Your task to perform on an android device: Open Yahoo.com Image 0: 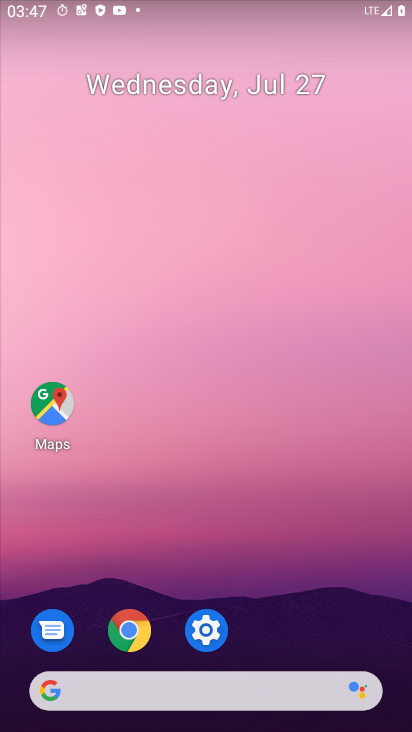
Step 0: drag from (270, 708) to (198, 222)
Your task to perform on an android device: Open Yahoo.com Image 1: 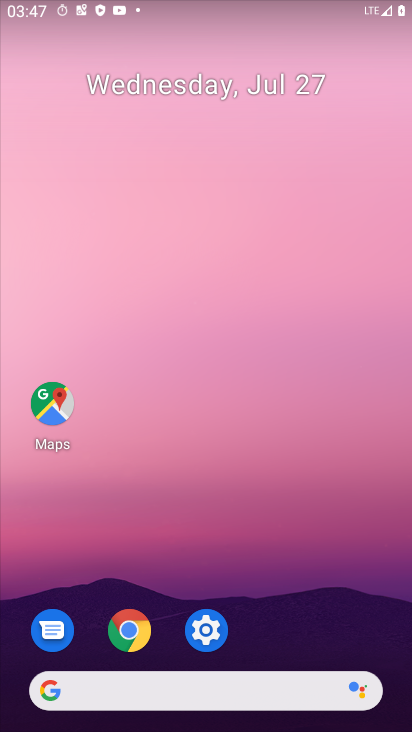
Step 1: drag from (226, 471) to (188, 282)
Your task to perform on an android device: Open Yahoo.com Image 2: 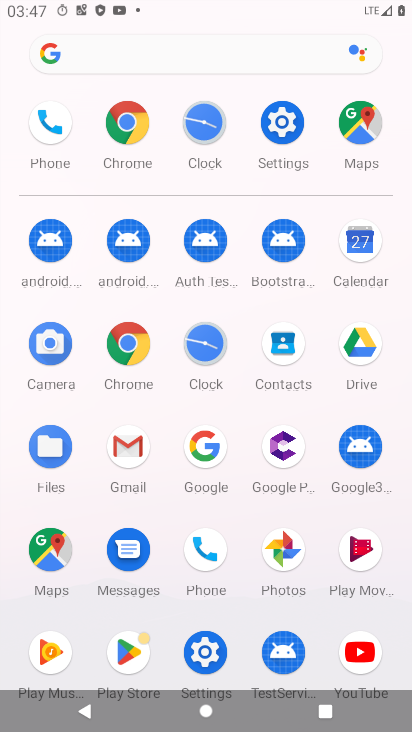
Step 2: drag from (266, 539) to (234, 165)
Your task to perform on an android device: Open Yahoo.com Image 3: 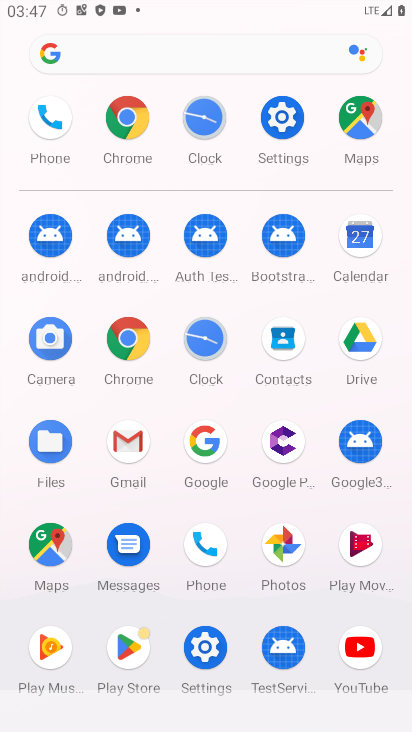
Step 3: drag from (289, 461) to (289, 319)
Your task to perform on an android device: Open Yahoo.com Image 4: 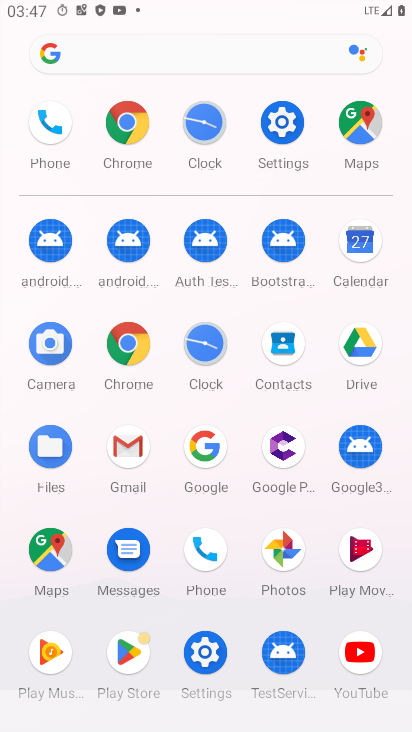
Step 4: click (131, 123)
Your task to perform on an android device: Open Yahoo.com Image 5: 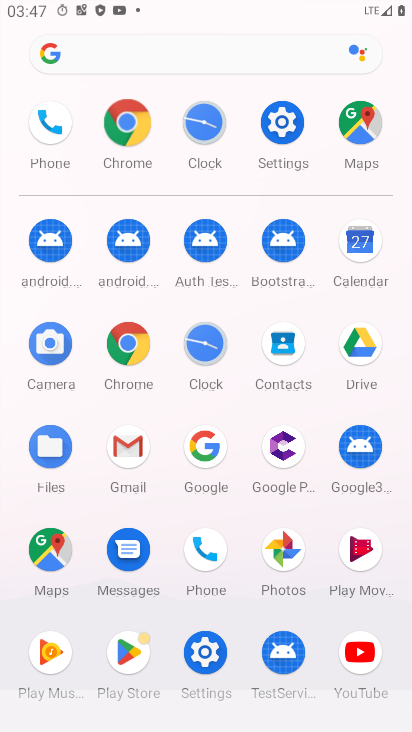
Step 5: click (132, 122)
Your task to perform on an android device: Open Yahoo.com Image 6: 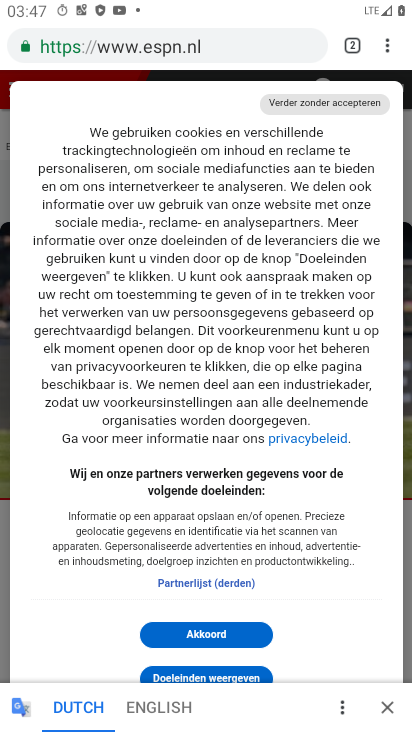
Step 6: press back button
Your task to perform on an android device: Open Yahoo.com Image 7: 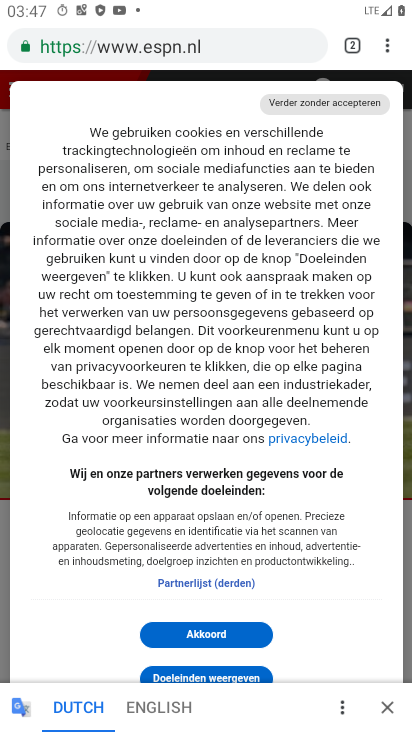
Step 7: press back button
Your task to perform on an android device: Open Yahoo.com Image 8: 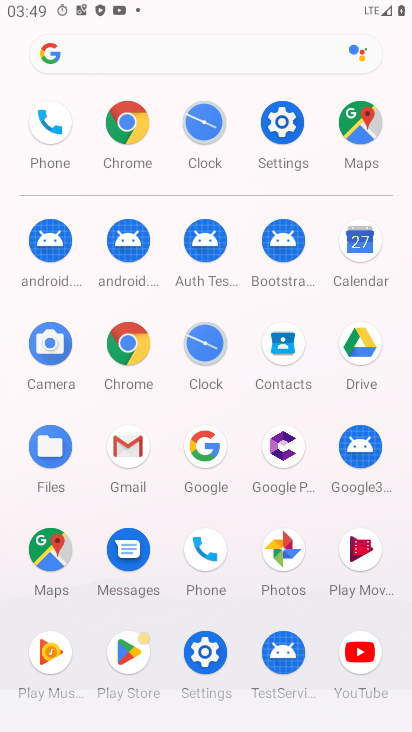
Step 8: click (123, 122)
Your task to perform on an android device: Open Yahoo.com Image 9: 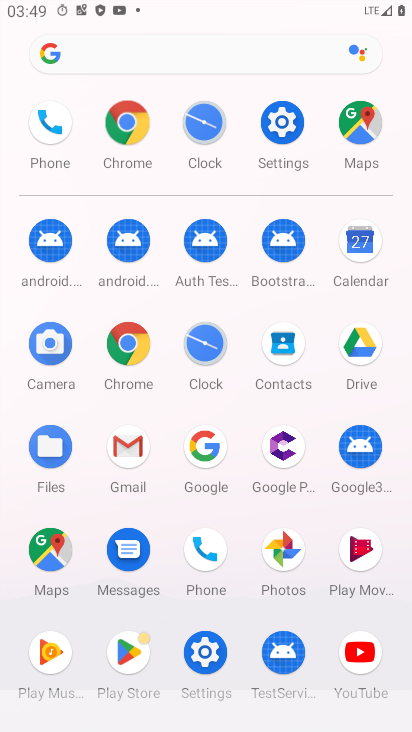
Step 9: click (123, 120)
Your task to perform on an android device: Open Yahoo.com Image 10: 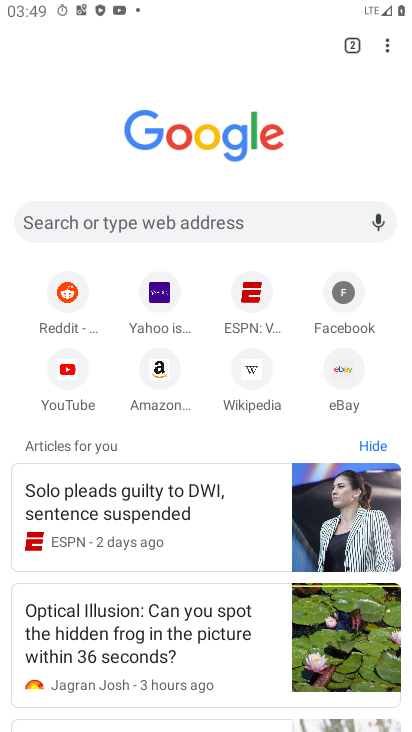
Step 10: click (140, 302)
Your task to perform on an android device: Open Yahoo.com Image 11: 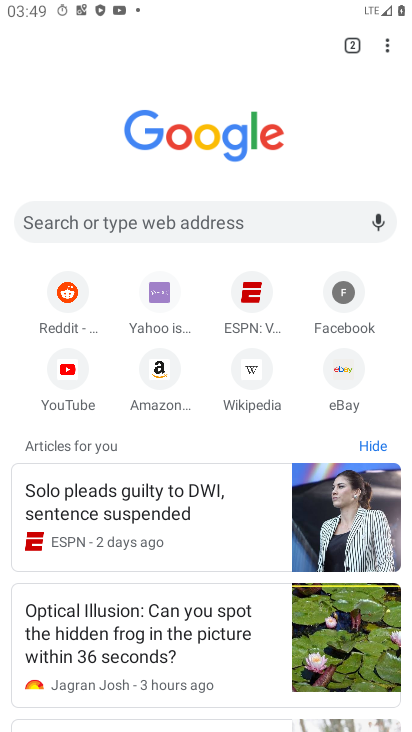
Step 11: click (146, 295)
Your task to perform on an android device: Open Yahoo.com Image 12: 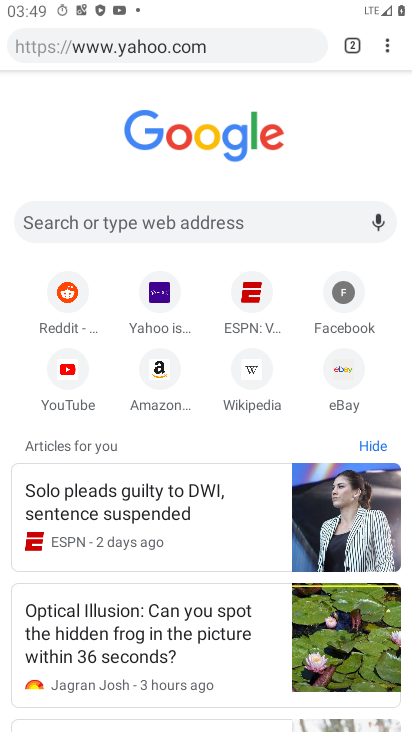
Step 12: click (146, 295)
Your task to perform on an android device: Open Yahoo.com Image 13: 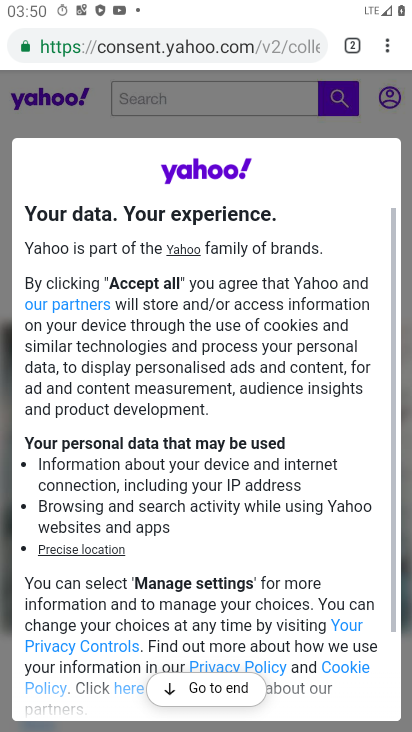
Step 13: click (397, 260)
Your task to perform on an android device: Open Yahoo.com Image 14: 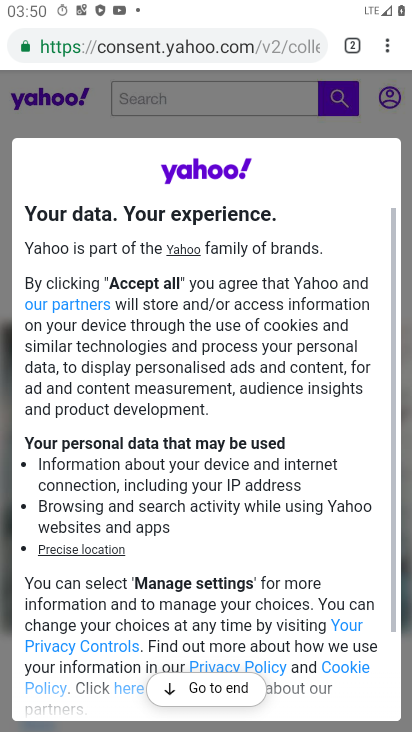
Step 14: task complete